Your task to perform on an android device: open app "Google Photos" Image 0: 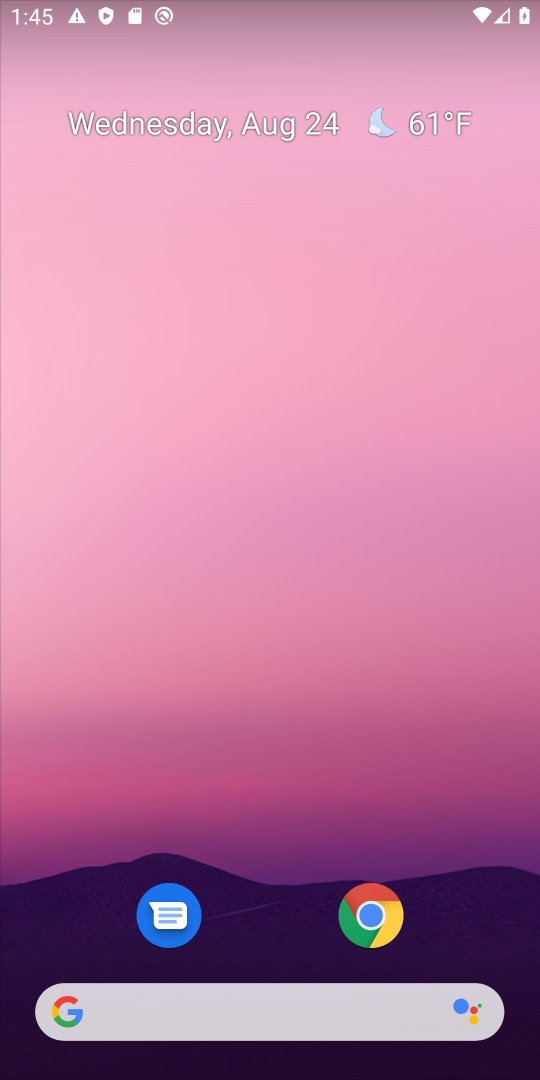
Step 0: drag from (260, 836) to (260, 294)
Your task to perform on an android device: open app "Google Photos" Image 1: 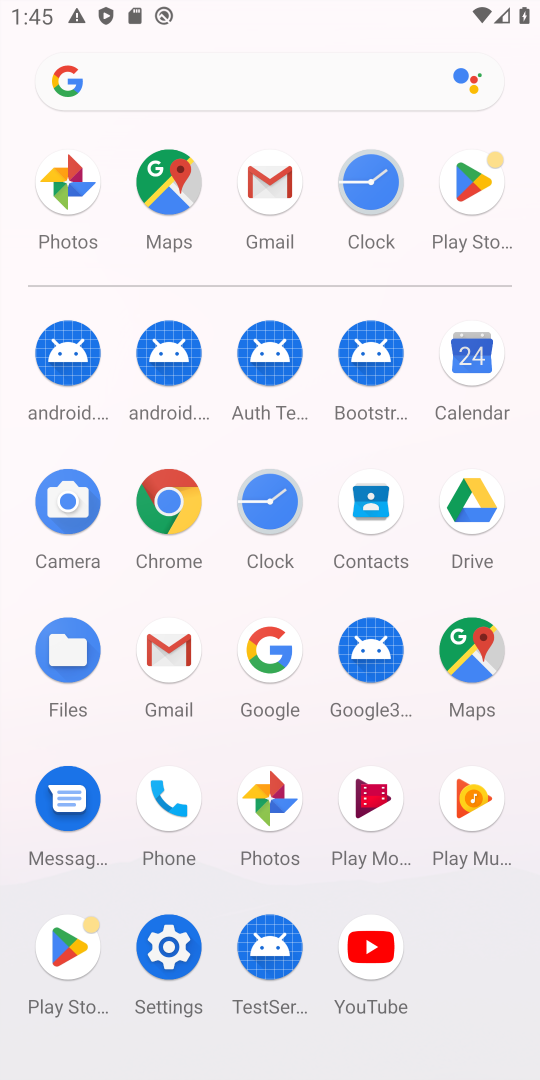
Step 1: click (467, 177)
Your task to perform on an android device: open app "Google Photos" Image 2: 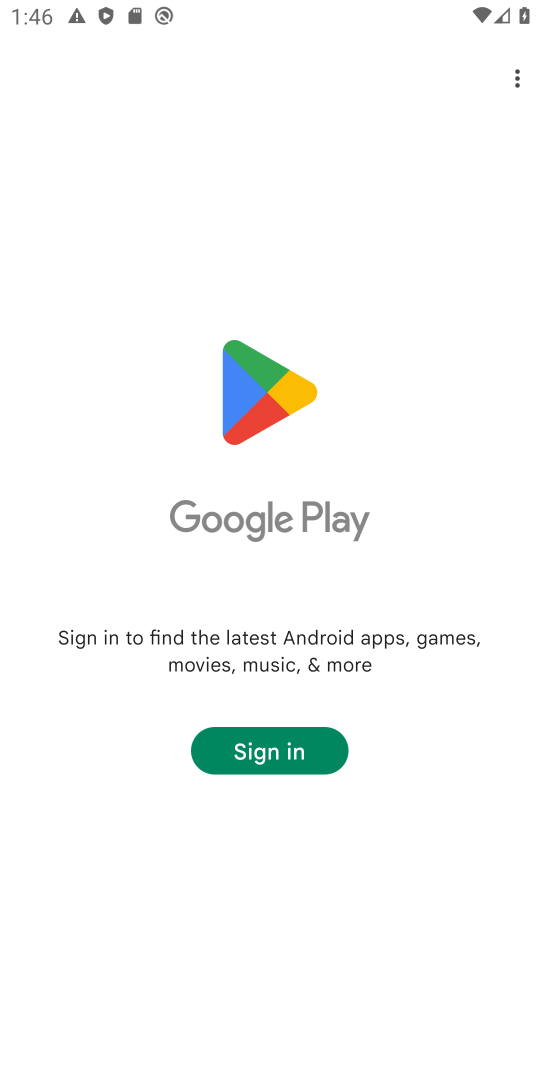
Step 2: task complete